Your task to perform on an android device: Search for custom made wallets on etsy.com Image 0: 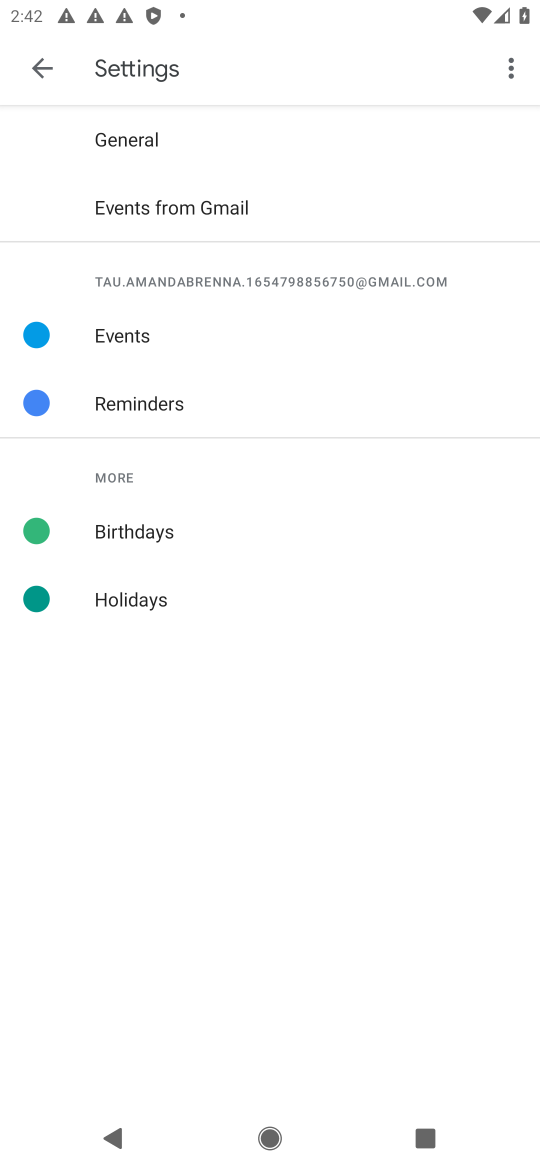
Step 0: press home button
Your task to perform on an android device: Search for custom made wallets on etsy.com Image 1: 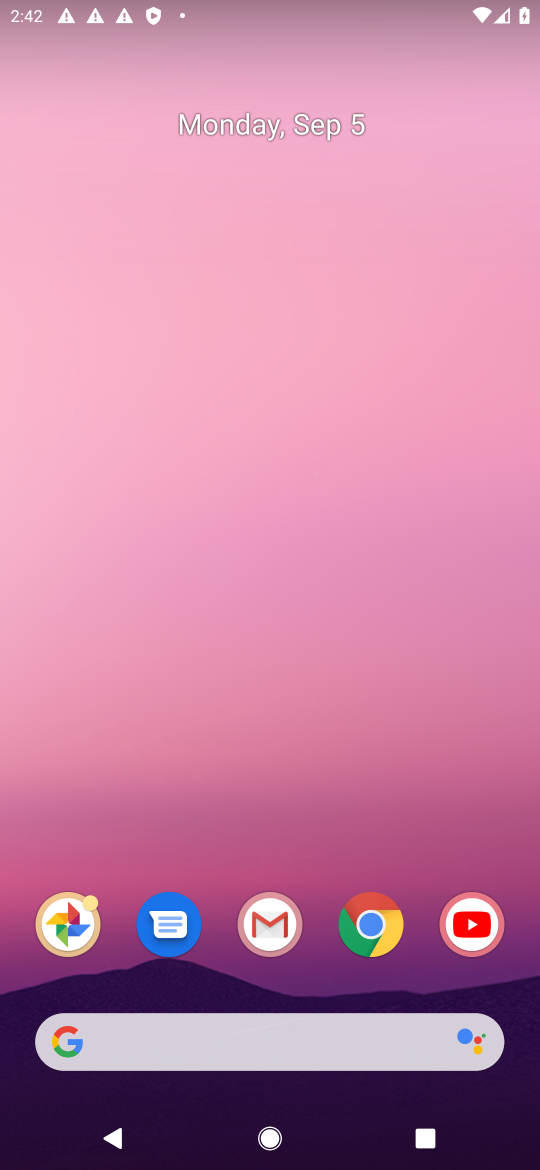
Step 1: drag from (304, 1012) to (470, 0)
Your task to perform on an android device: Search for custom made wallets on etsy.com Image 2: 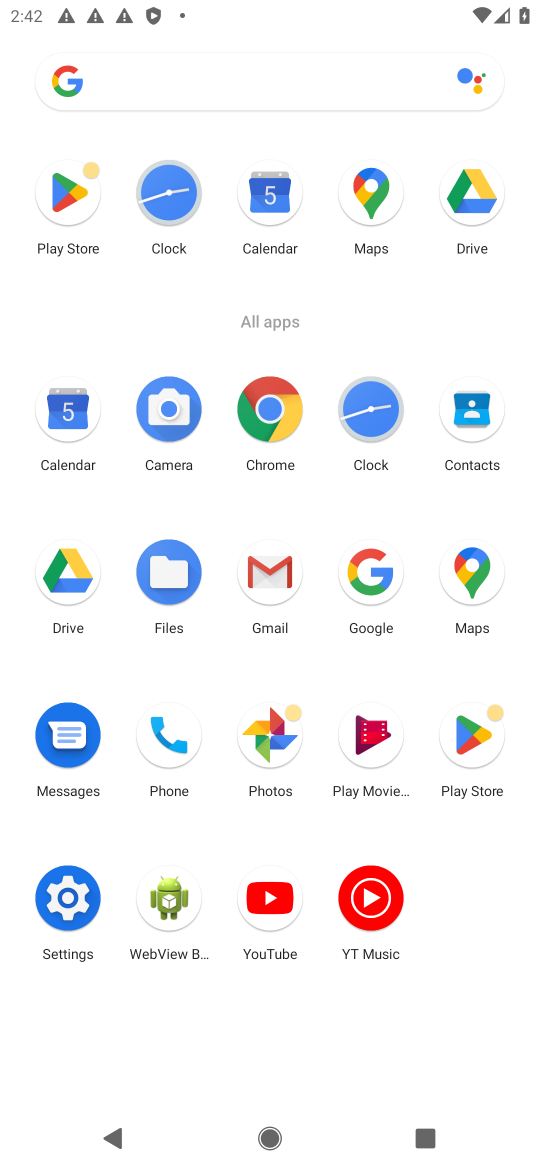
Step 2: click (268, 450)
Your task to perform on an android device: Search for custom made wallets on etsy.com Image 3: 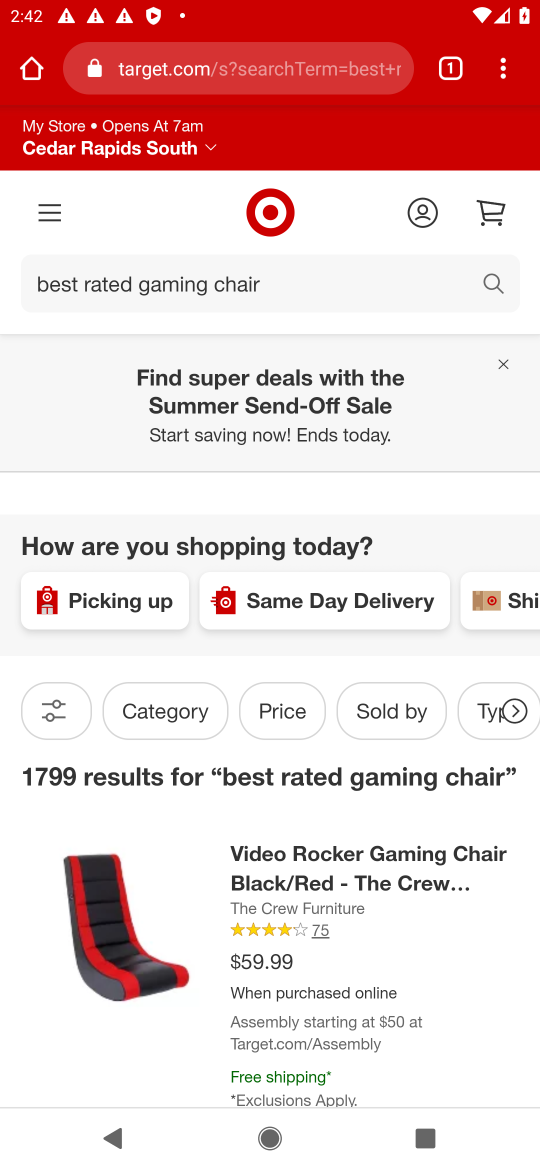
Step 3: click (239, 68)
Your task to perform on an android device: Search for custom made wallets on etsy.com Image 4: 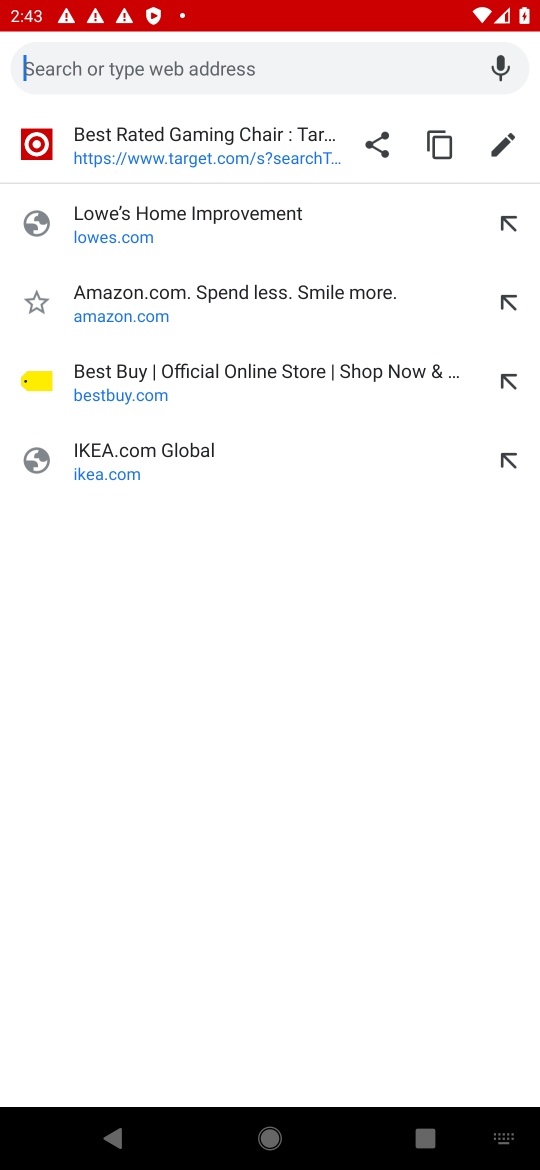
Step 4: type "etsy"
Your task to perform on an android device: Search for custom made wallets on etsy.com Image 5: 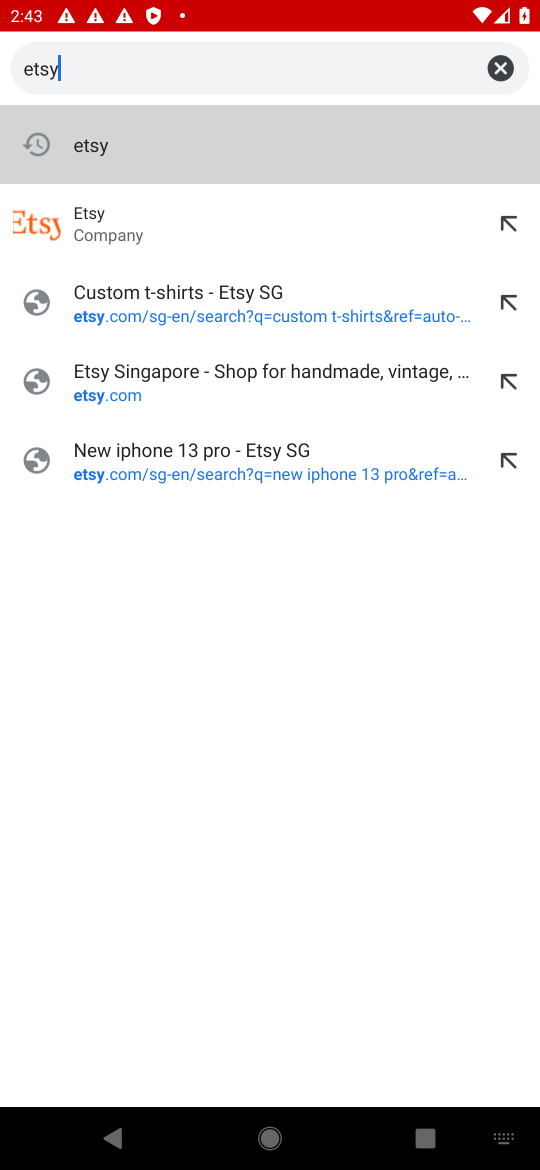
Step 5: click (69, 224)
Your task to perform on an android device: Search for custom made wallets on etsy.com Image 6: 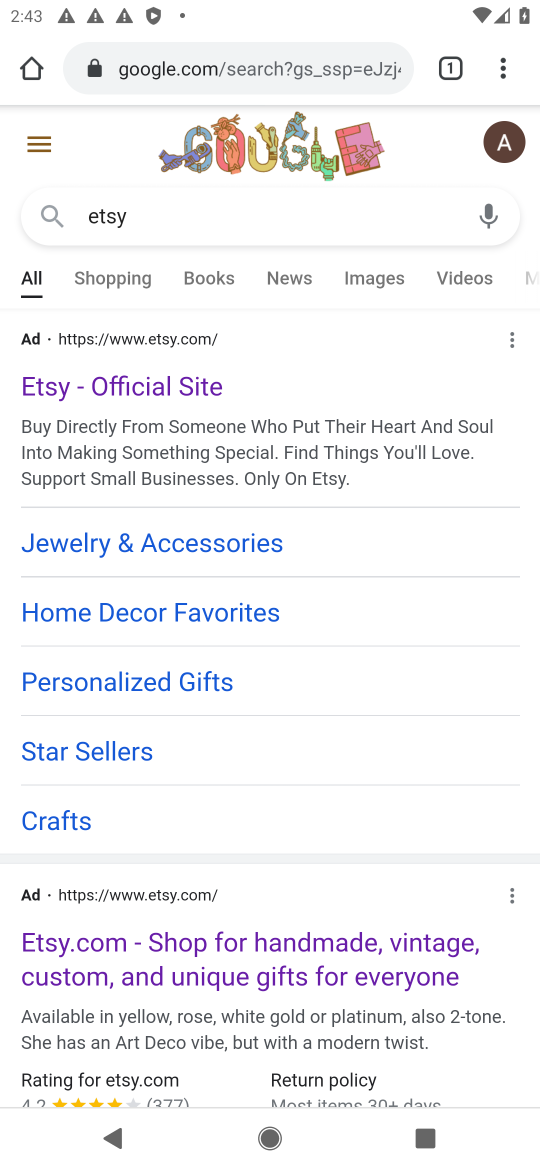
Step 6: drag from (228, 968) to (265, 399)
Your task to perform on an android device: Search for custom made wallets on etsy.com Image 7: 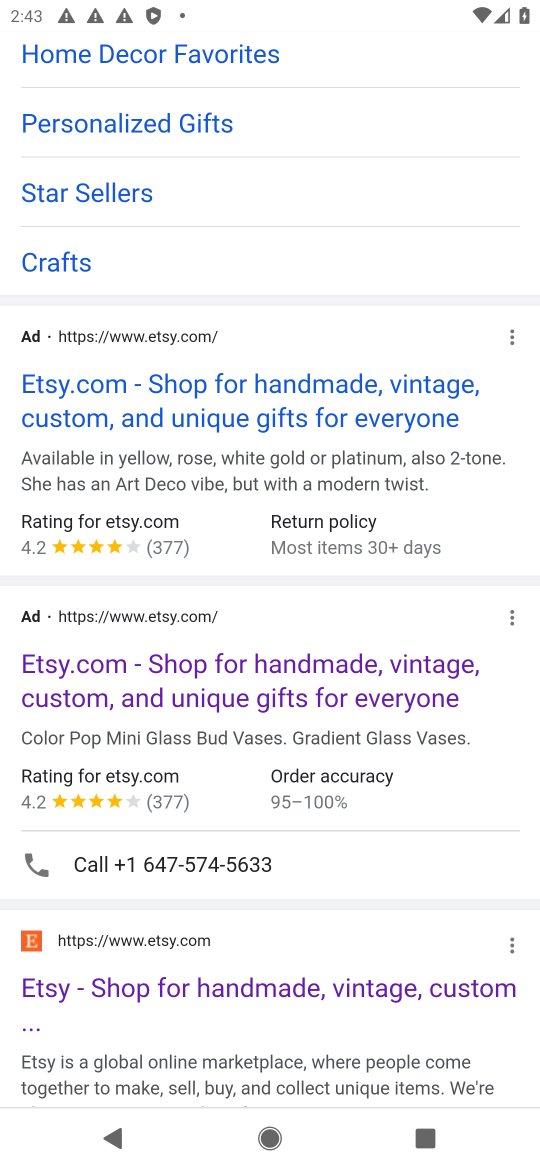
Step 7: click (170, 989)
Your task to perform on an android device: Search for custom made wallets on etsy.com Image 8: 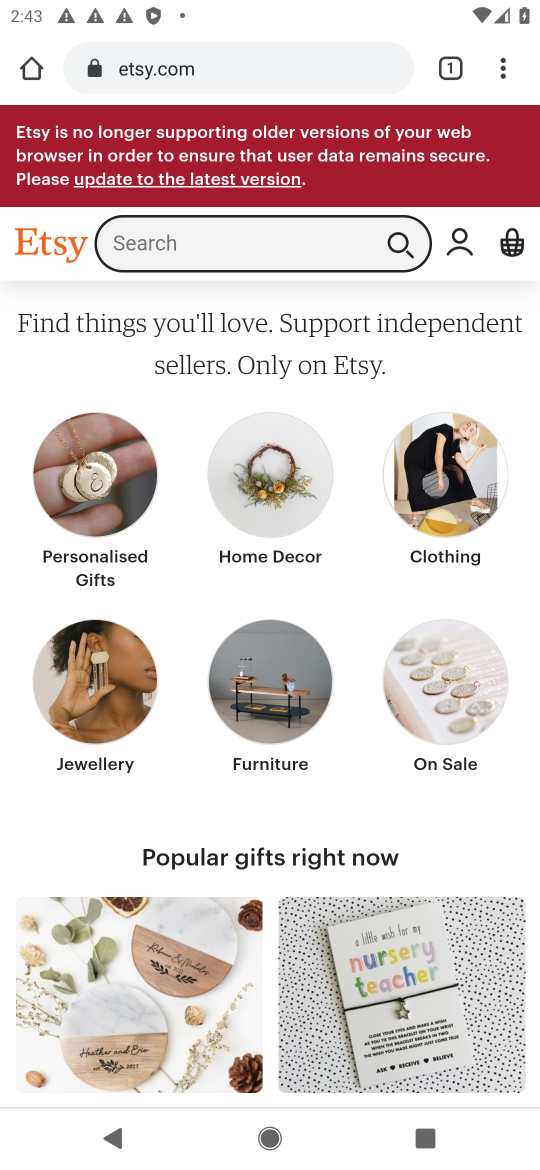
Step 8: click (172, 252)
Your task to perform on an android device: Search for custom made wallets on etsy.com Image 9: 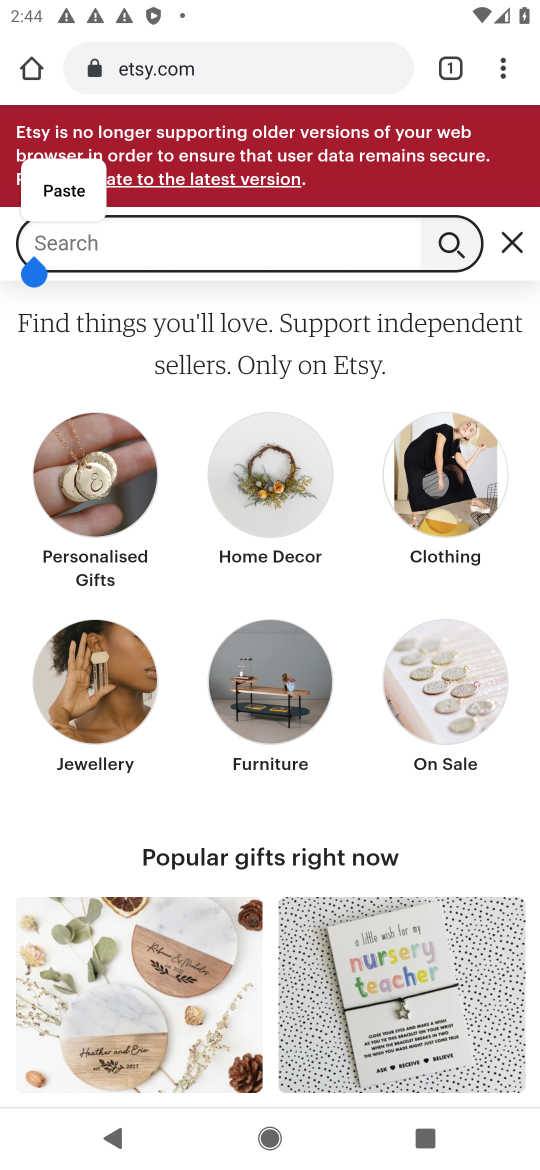
Step 9: type "custom made wallet"
Your task to perform on an android device: Search for custom made wallets on etsy.com Image 10: 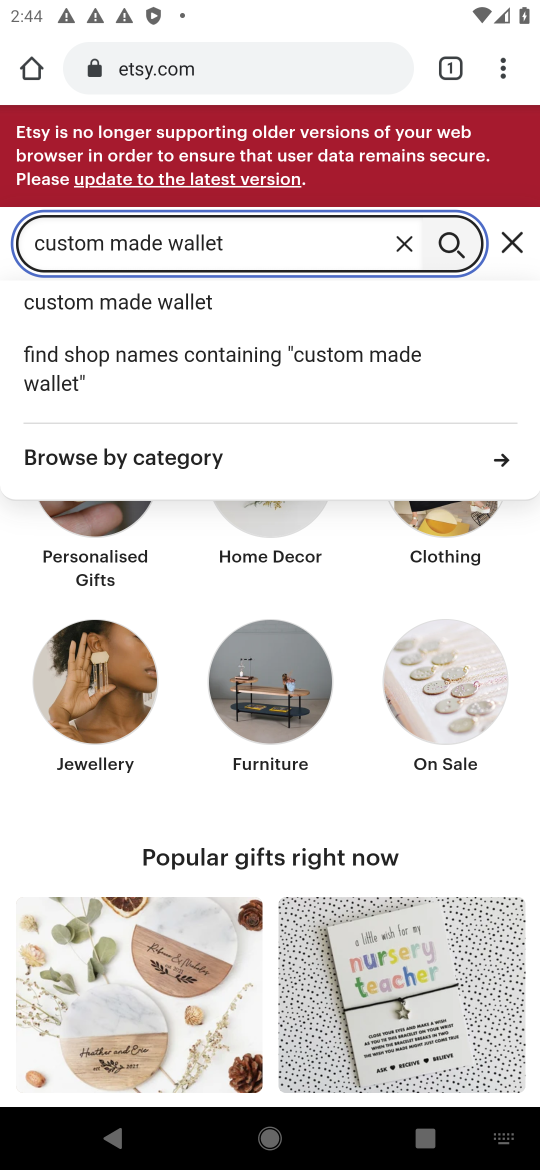
Step 10: click (168, 290)
Your task to perform on an android device: Search for custom made wallets on etsy.com Image 11: 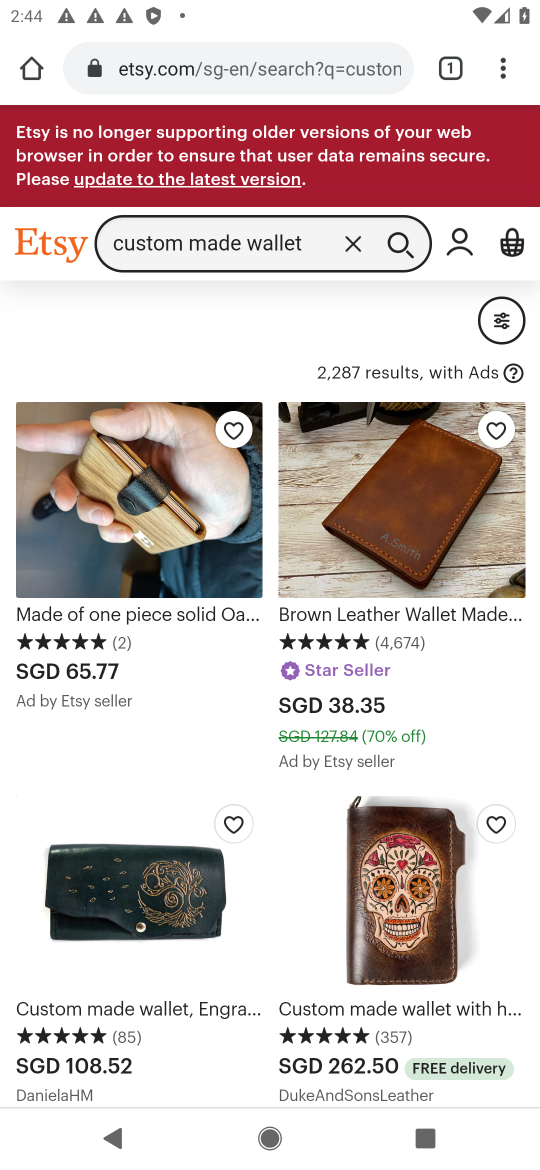
Step 11: task complete